Your task to perform on an android device: Open Google Chrome and click the shortcut for Amazon.com Image 0: 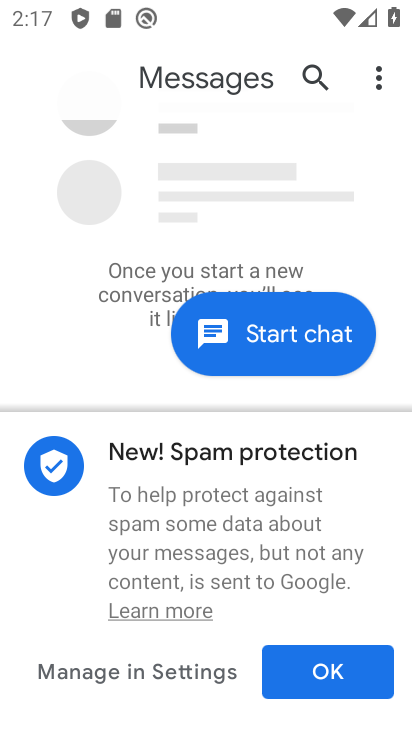
Step 0: press home button
Your task to perform on an android device: Open Google Chrome and click the shortcut for Amazon.com Image 1: 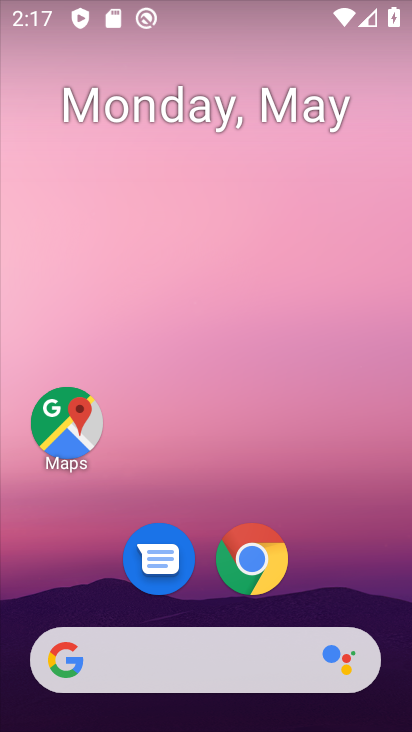
Step 1: click (255, 573)
Your task to perform on an android device: Open Google Chrome and click the shortcut for Amazon.com Image 2: 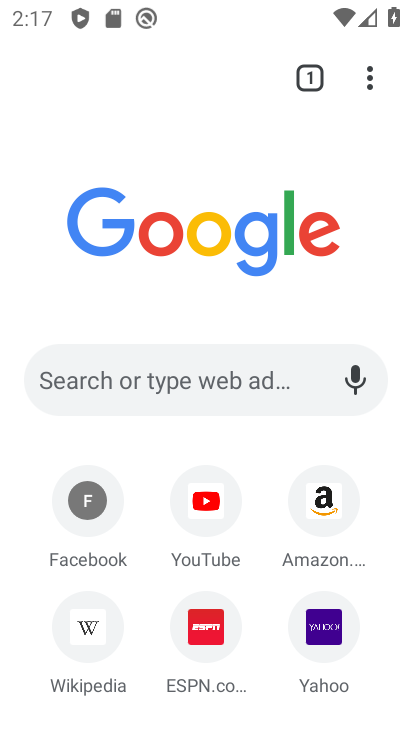
Step 2: click (327, 499)
Your task to perform on an android device: Open Google Chrome and click the shortcut for Amazon.com Image 3: 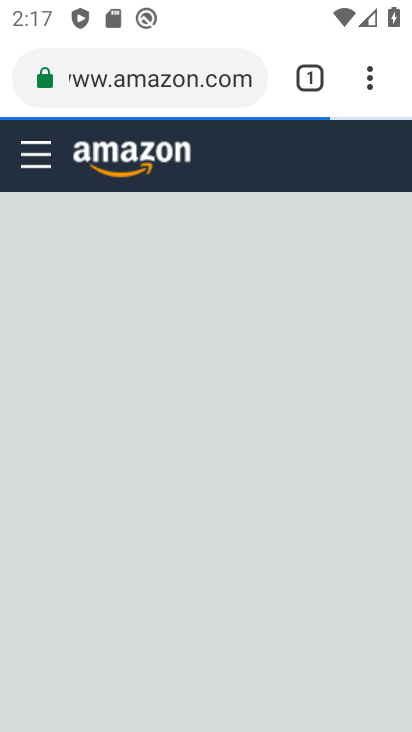
Step 3: click (373, 78)
Your task to perform on an android device: Open Google Chrome and click the shortcut for Amazon.com Image 4: 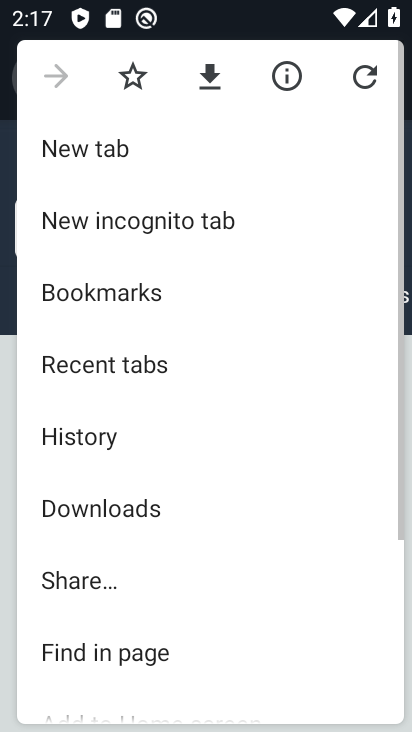
Step 4: drag from (160, 420) to (202, 156)
Your task to perform on an android device: Open Google Chrome and click the shortcut for Amazon.com Image 5: 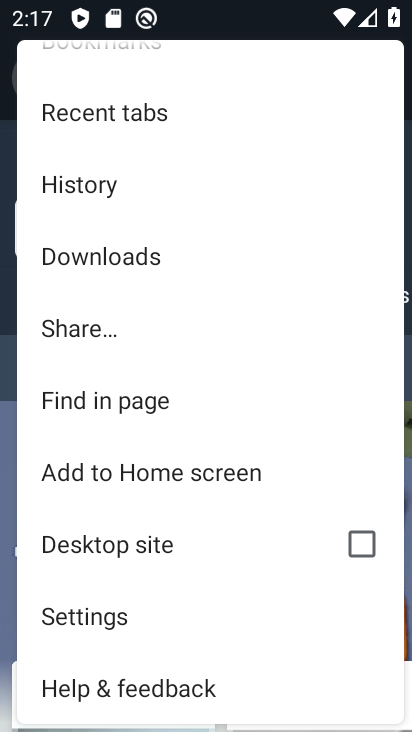
Step 5: click (157, 464)
Your task to perform on an android device: Open Google Chrome and click the shortcut for Amazon.com Image 6: 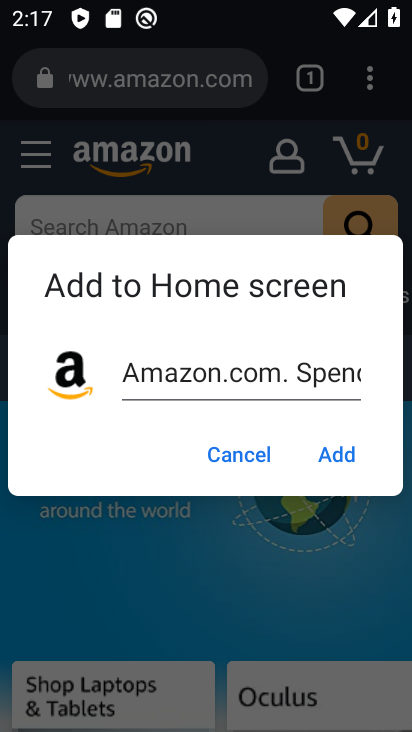
Step 6: click (340, 452)
Your task to perform on an android device: Open Google Chrome and click the shortcut for Amazon.com Image 7: 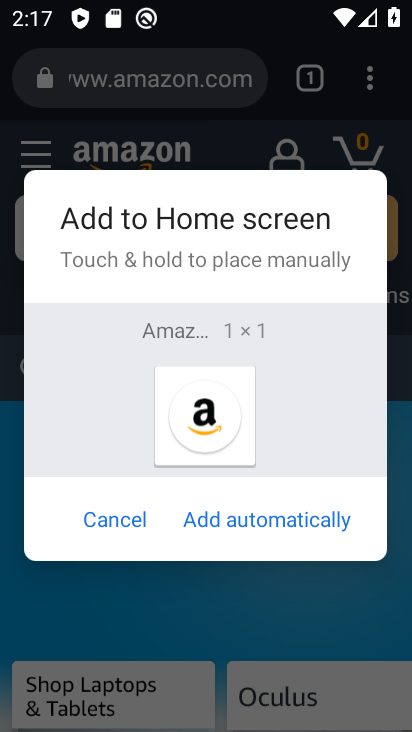
Step 7: click (292, 534)
Your task to perform on an android device: Open Google Chrome and click the shortcut for Amazon.com Image 8: 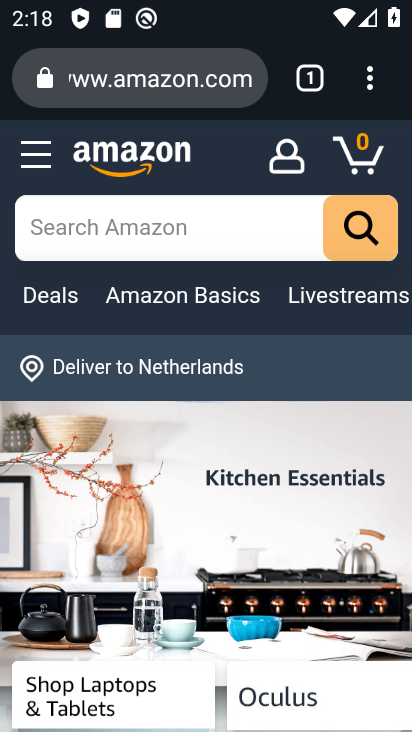
Step 8: task complete